Your task to perform on an android device: Search for vegetarian restaurants on Maps Image 0: 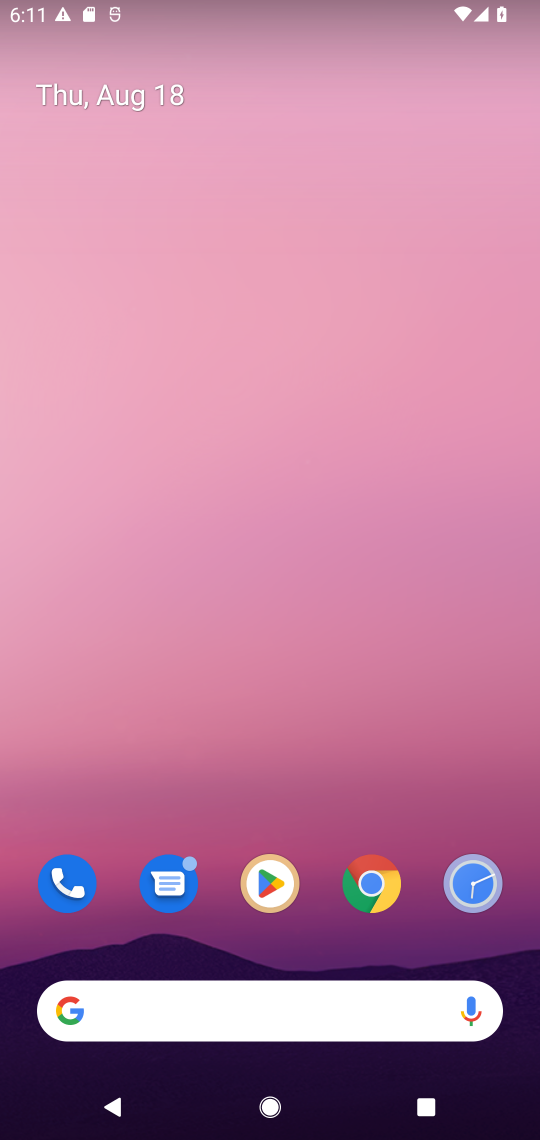
Step 0: drag from (45, 1032) to (444, 66)
Your task to perform on an android device: Search for vegetarian restaurants on Maps Image 1: 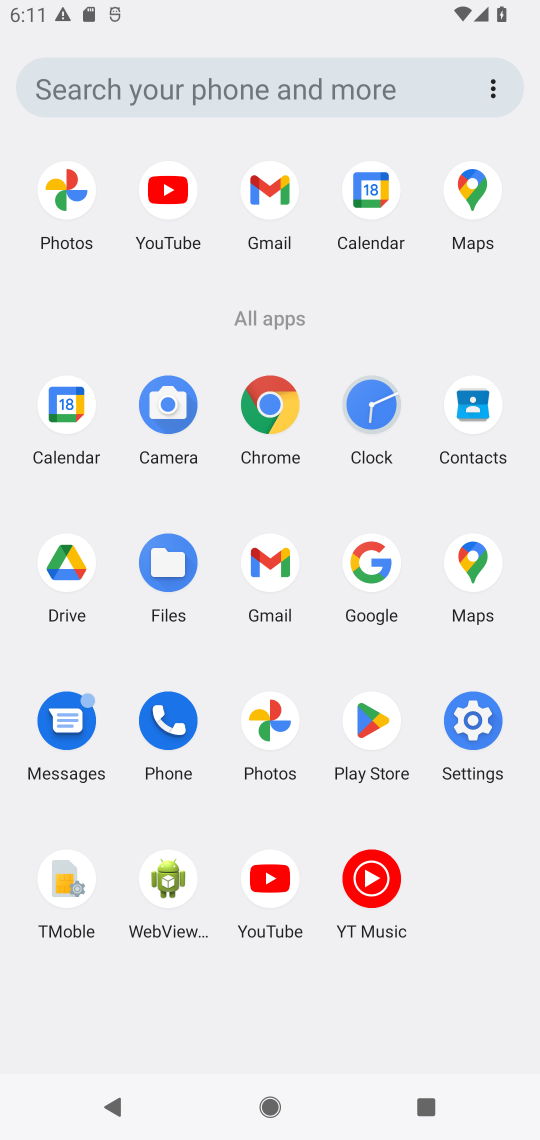
Step 1: click (463, 552)
Your task to perform on an android device: Search for vegetarian restaurants on Maps Image 2: 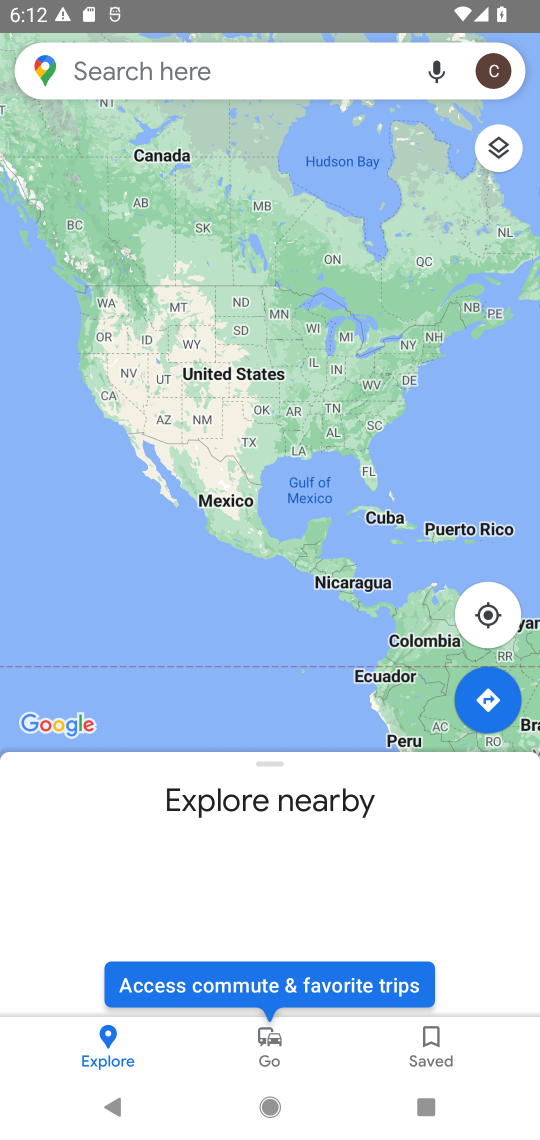
Step 2: click (101, 61)
Your task to perform on an android device: Search for vegetarian restaurants on Maps Image 3: 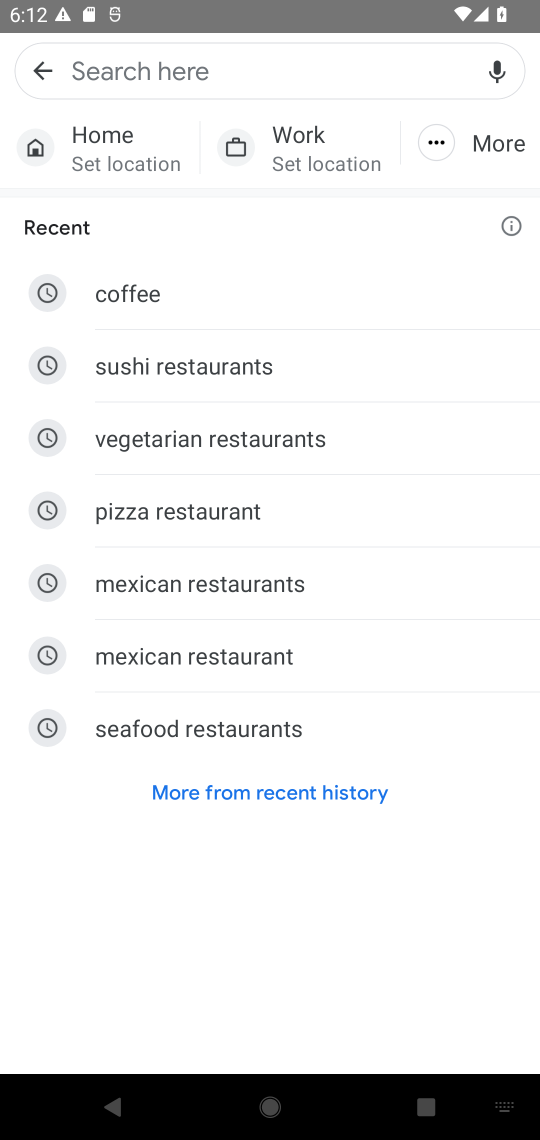
Step 3: click (244, 437)
Your task to perform on an android device: Search for vegetarian restaurants on Maps Image 4: 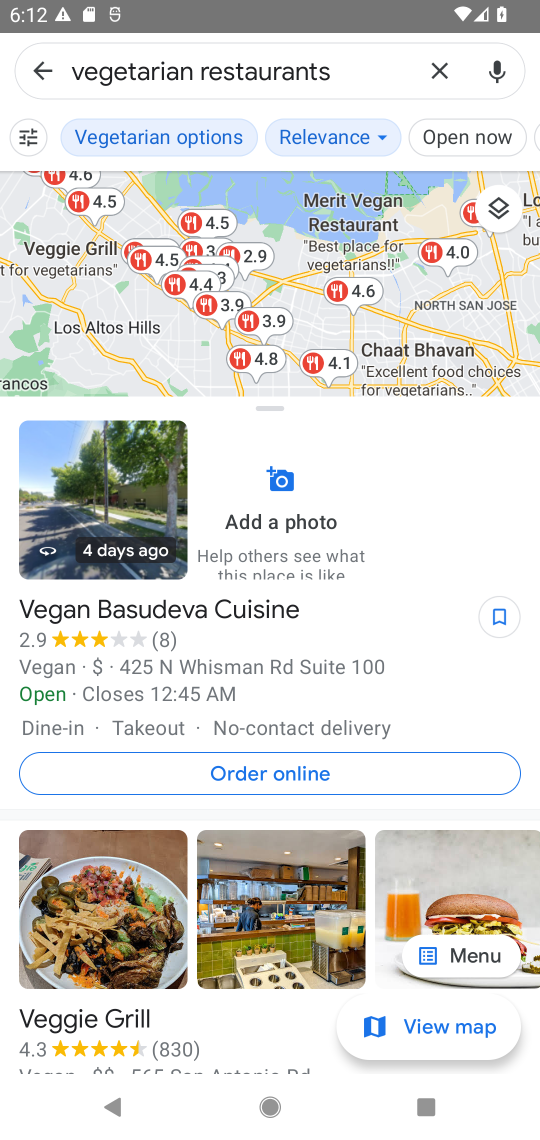
Step 4: task complete